Your task to perform on an android device: check data usage Image 0: 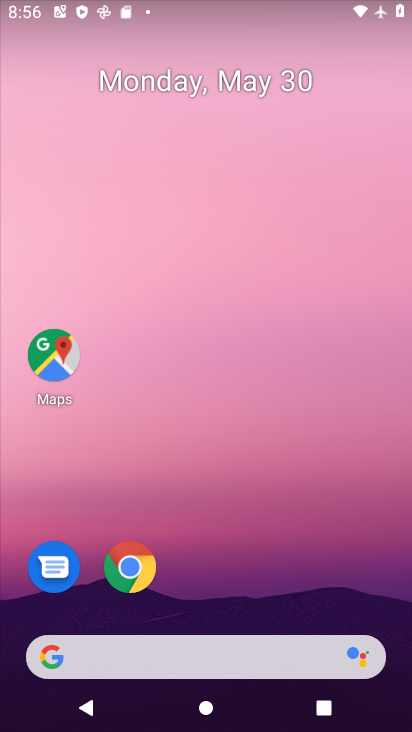
Step 0: drag from (291, 601) to (275, 124)
Your task to perform on an android device: check data usage Image 1: 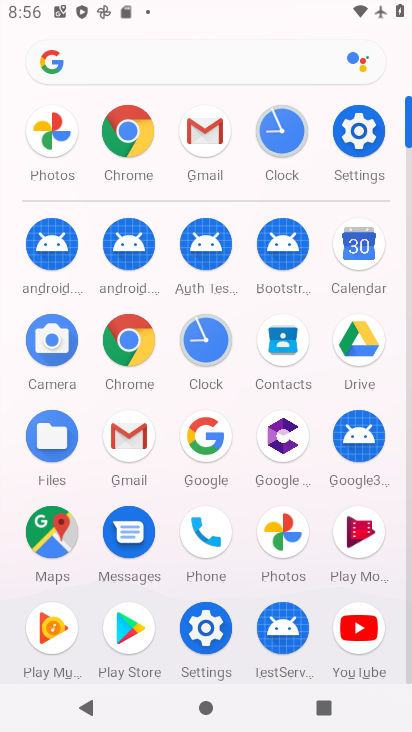
Step 1: click (359, 142)
Your task to perform on an android device: check data usage Image 2: 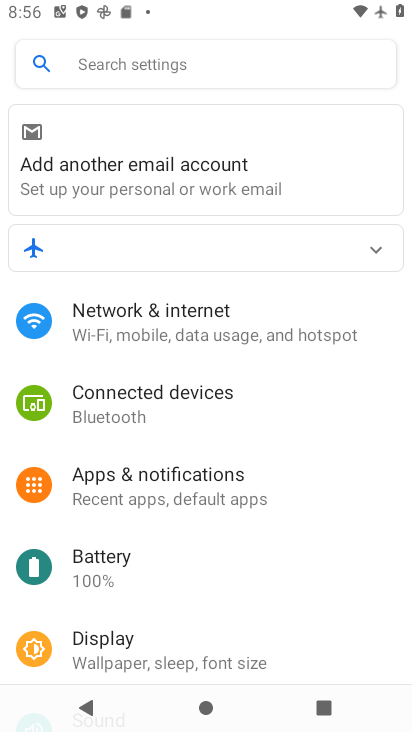
Step 2: click (192, 316)
Your task to perform on an android device: check data usage Image 3: 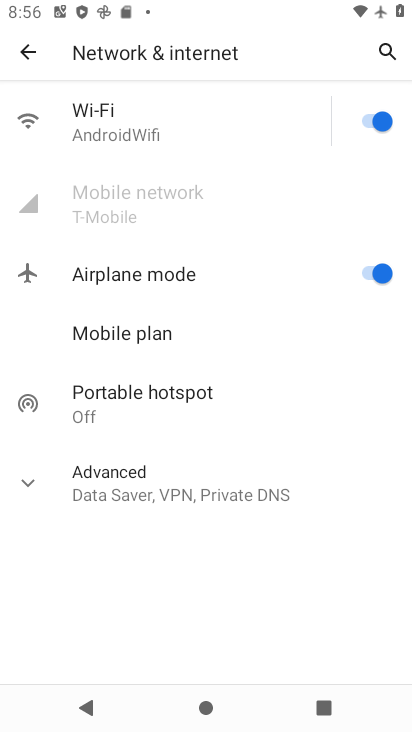
Step 3: click (363, 266)
Your task to perform on an android device: check data usage Image 4: 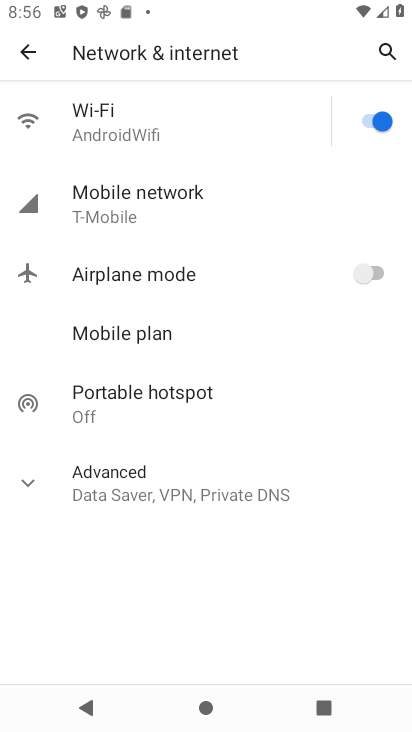
Step 4: click (234, 195)
Your task to perform on an android device: check data usage Image 5: 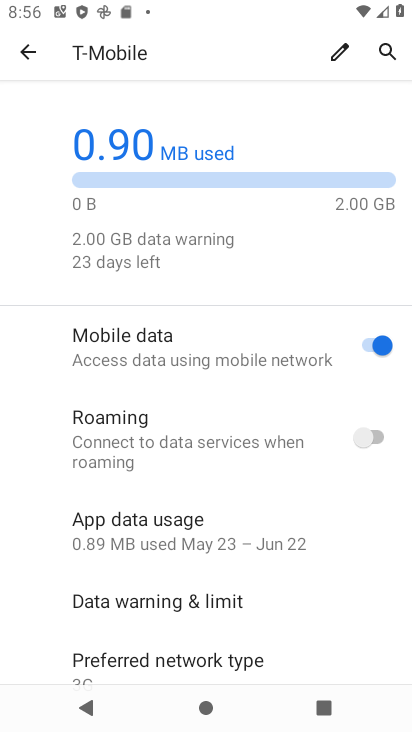
Step 5: task complete